Your task to perform on an android device: change keyboard looks Image 0: 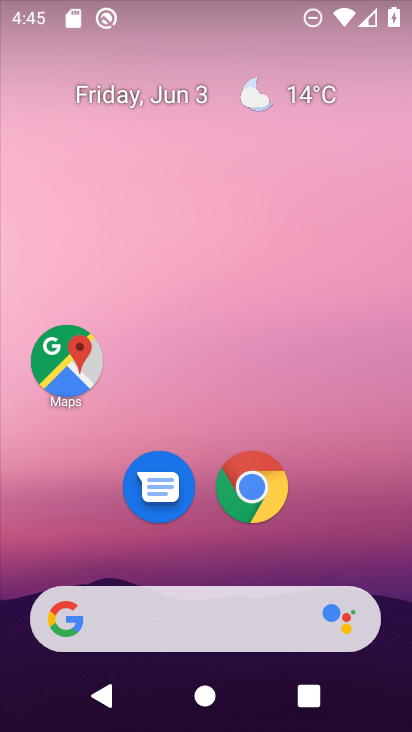
Step 0: drag from (176, 595) to (252, 145)
Your task to perform on an android device: change keyboard looks Image 1: 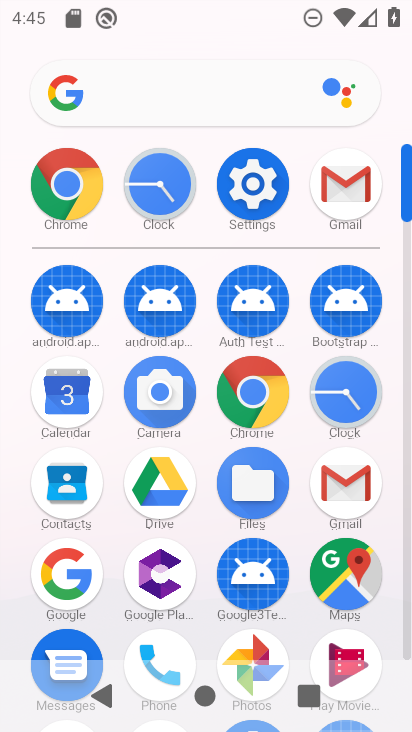
Step 1: click (251, 192)
Your task to perform on an android device: change keyboard looks Image 2: 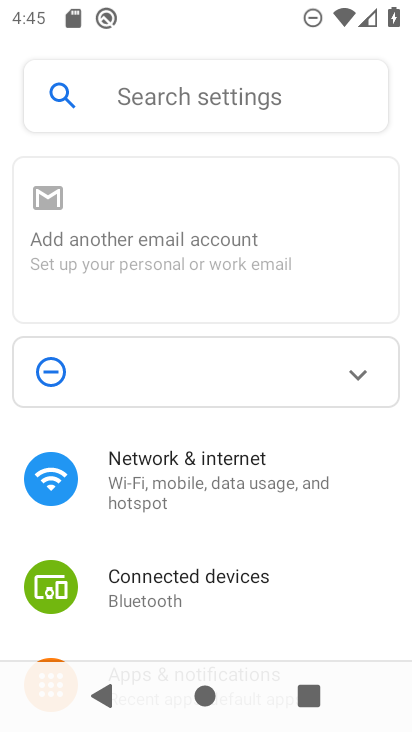
Step 2: drag from (255, 272) to (305, 30)
Your task to perform on an android device: change keyboard looks Image 3: 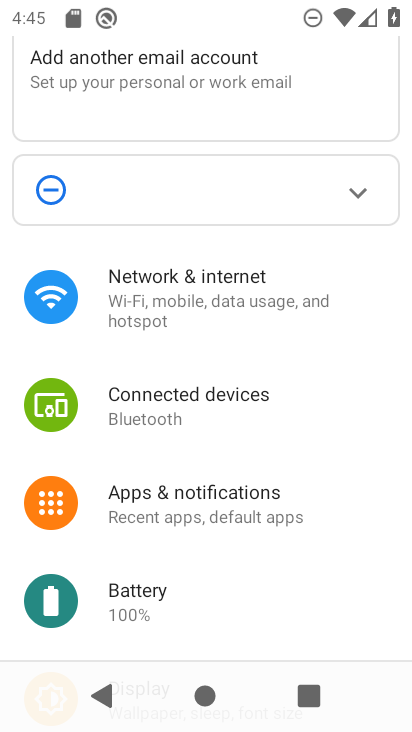
Step 3: drag from (174, 600) to (272, 93)
Your task to perform on an android device: change keyboard looks Image 4: 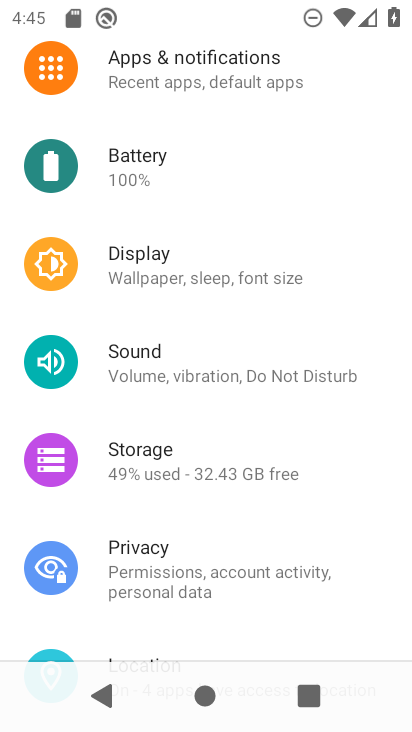
Step 4: drag from (151, 623) to (283, 25)
Your task to perform on an android device: change keyboard looks Image 5: 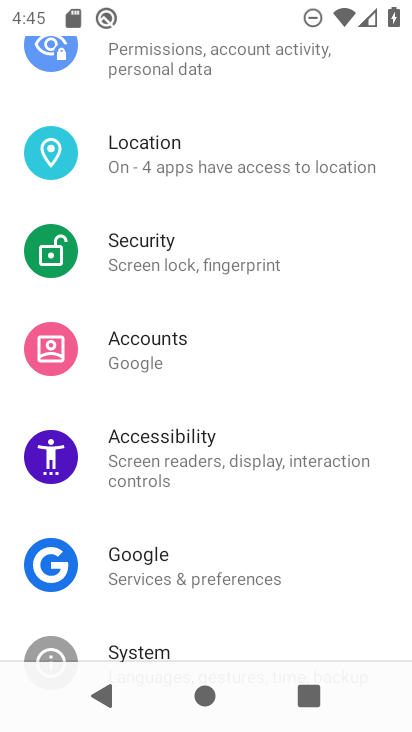
Step 5: drag from (182, 629) to (260, 30)
Your task to perform on an android device: change keyboard looks Image 6: 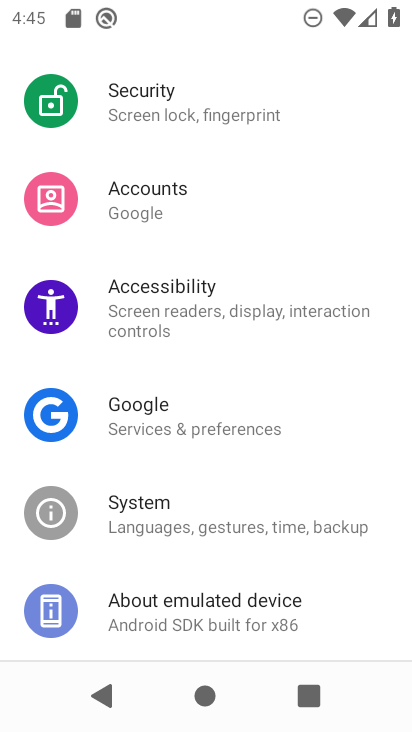
Step 6: click (161, 520)
Your task to perform on an android device: change keyboard looks Image 7: 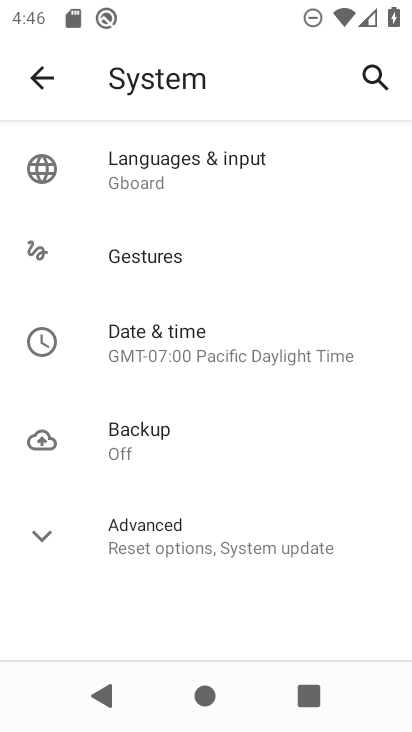
Step 7: click (150, 164)
Your task to perform on an android device: change keyboard looks Image 8: 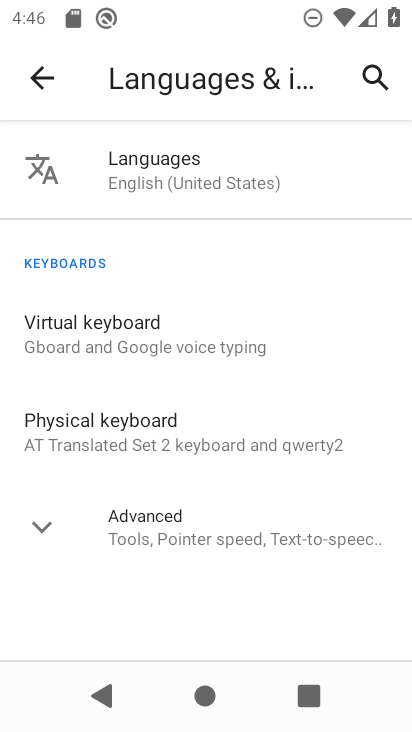
Step 8: click (101, 361)
Your task to perform on an android device: change keyboard looks Image 9: 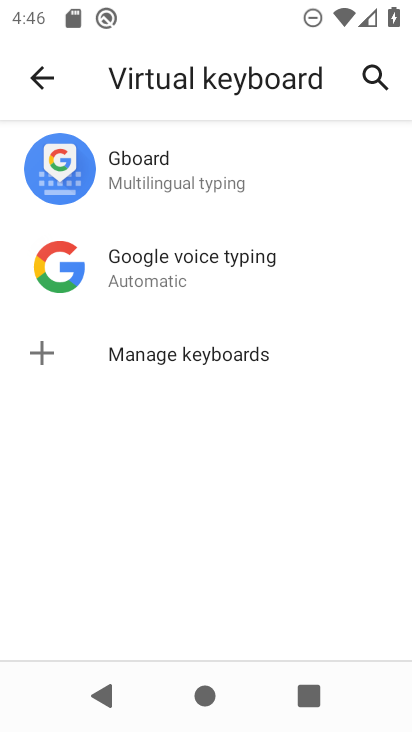
Step 9: click (156, 164)
Your task to perform on an android device: change keyboard looks Image 10: 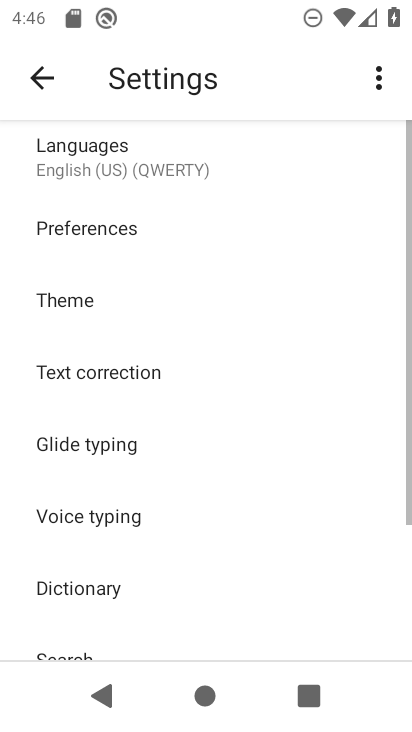
Step 10: click (81, 315)
Your task to perform on an android device: change keyboard looks Image 11: 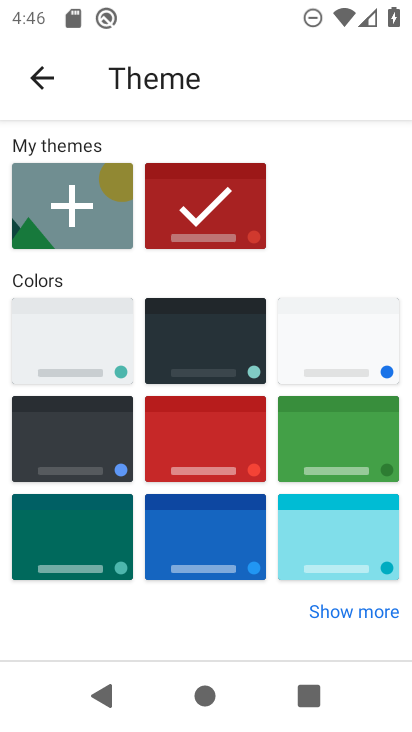
Step 11: click (345, 418)
Your task to perform on an android device: change keyboard looks Image 12: 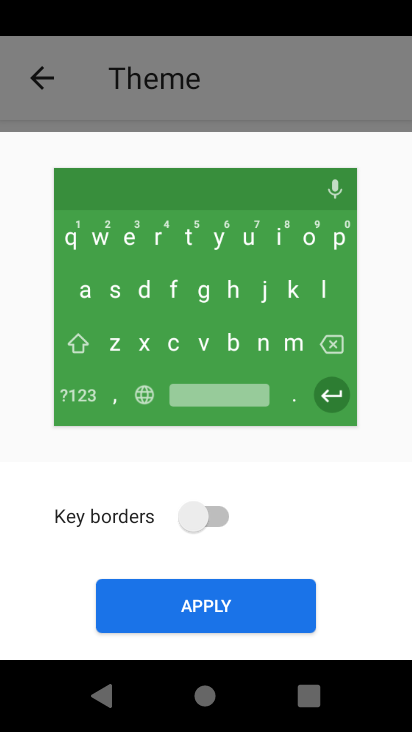
Step 12: click (201, 514)
Your task to perform on an android device: change keyboard looks Image 13: 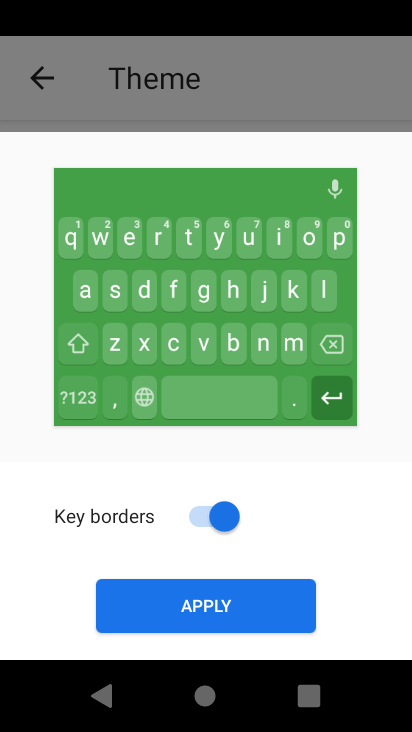
Step 13: click (201, 605)
Your task to perform on an android device: change keyboard looks Image 14: 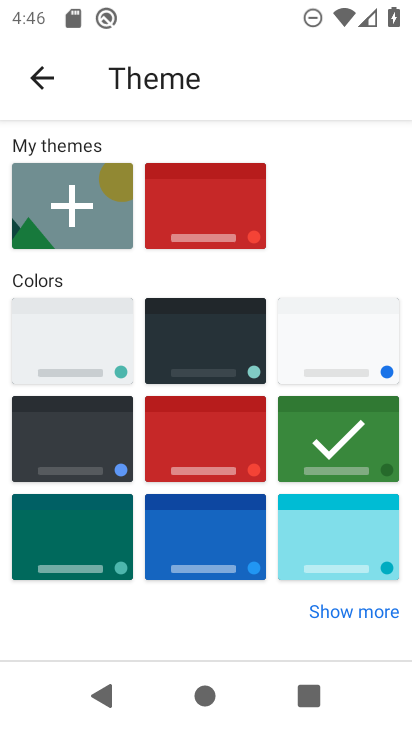
Step 14: task complete